Your task to perform on an android device: add a label to a message in the gmail app Image 0: 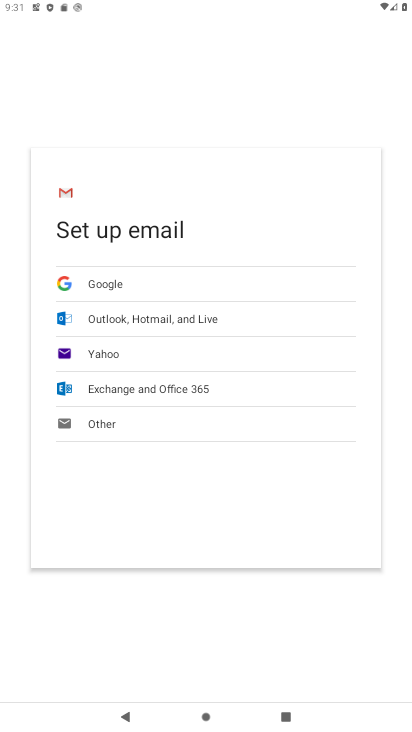
Step 0: task complete